Your task to perform on an android device: allow notifications from all sites in the chrome app Image 0: 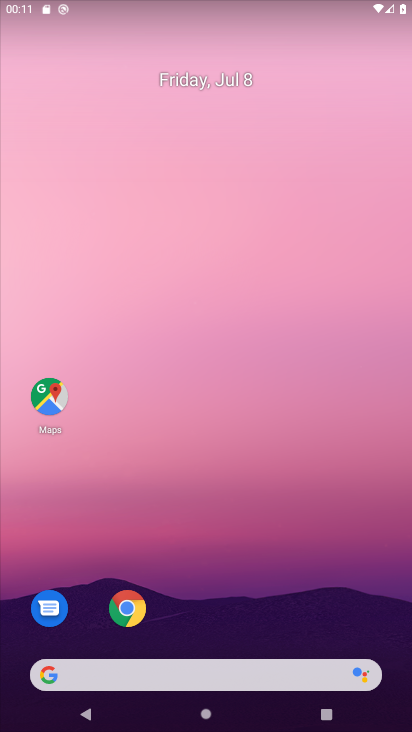
Step 0: drag from (265, 658) to (251, 290)
Your task to perform on an android device: allow notifications from all sites in the chrome app Image 1: 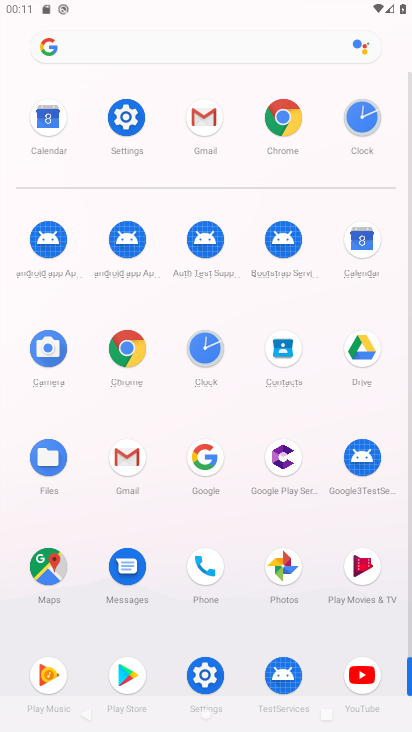
Step 1: click (279, 107)
Your task to perform on an android device: allow notifications from all sites in the chrome app Image 2: 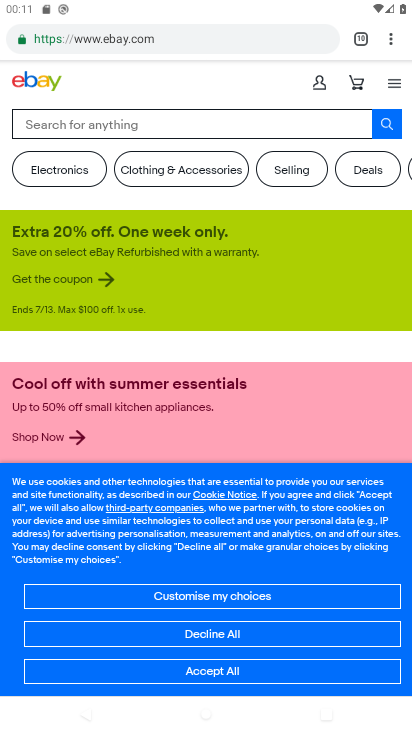
Step 2: press home button
Your task to perform on an android device: allow notifications from all sites in the chrome app Image 3: 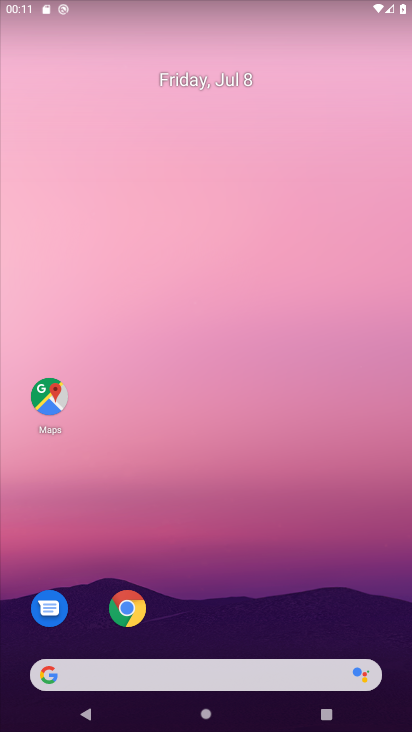
Step 3: drag from (293, 575) to (296, 238)
Your task to perform on an android device: allow notifications from all sites in the chrome app Image 4: 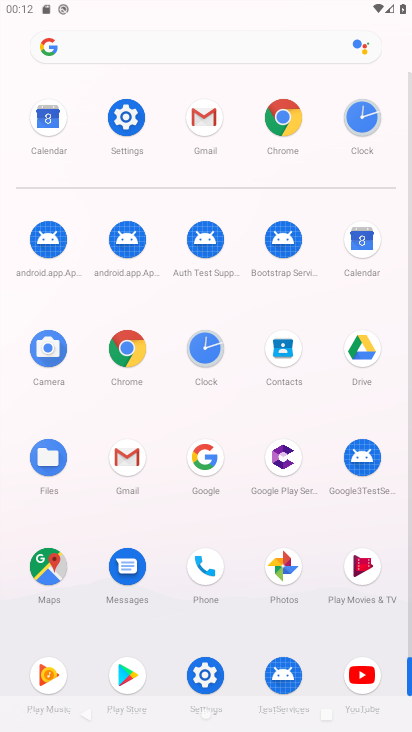
Step 4: click (133, 341)
Your task to perform on an android device: allow notifications from all sites in the chrome app Image 5: 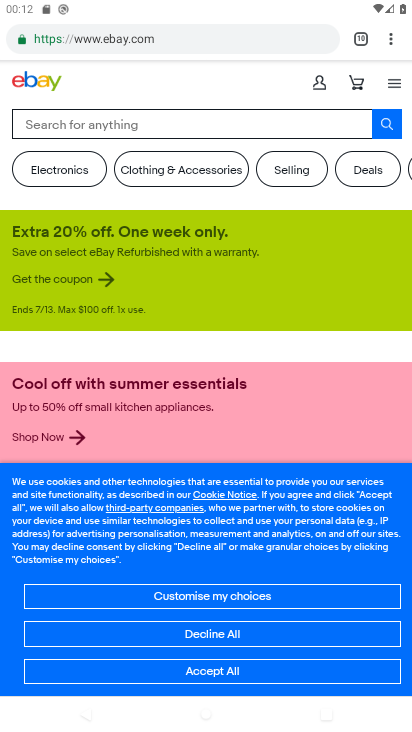
Step 5: click (391, 26)
Your task to perform on an android device: allow notifications from all sites in the chrome app Image 6: 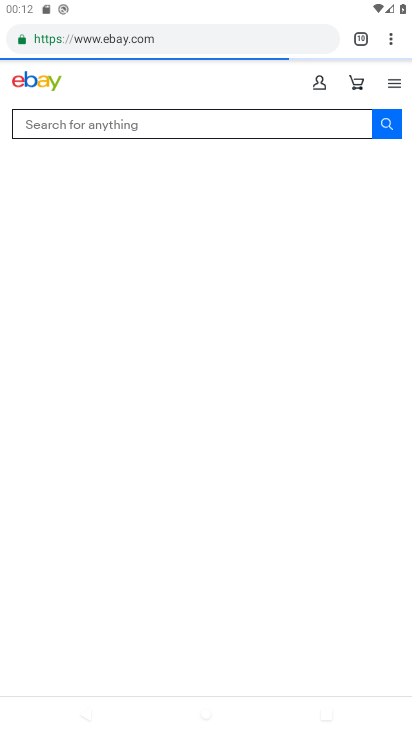
Step 6: click (389, 30)
Your task to perform on an android device: allow notifications from all sites in the chrome app Image 7: 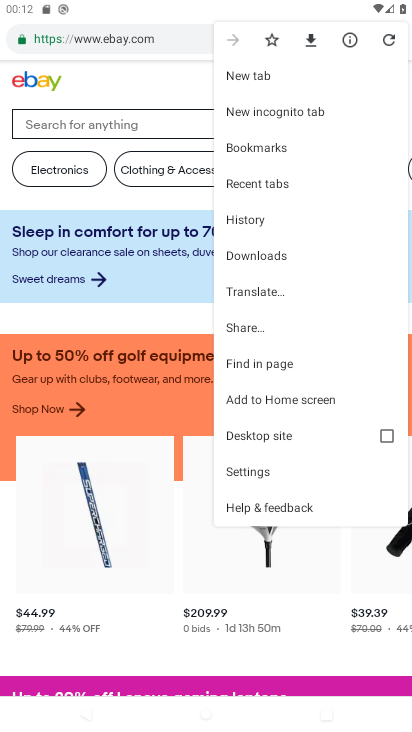
Step 7: click (253, 466)
Your task to perform on an android device: allow notifications from all sites in the chrome app Image 8: 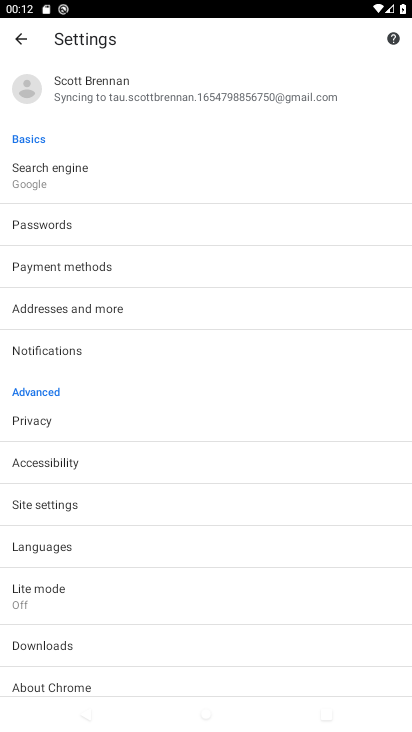
Step 8: click (84, 504)
Your task to perform on an android device: allow notifications from all sites in the chrome app Image 9: 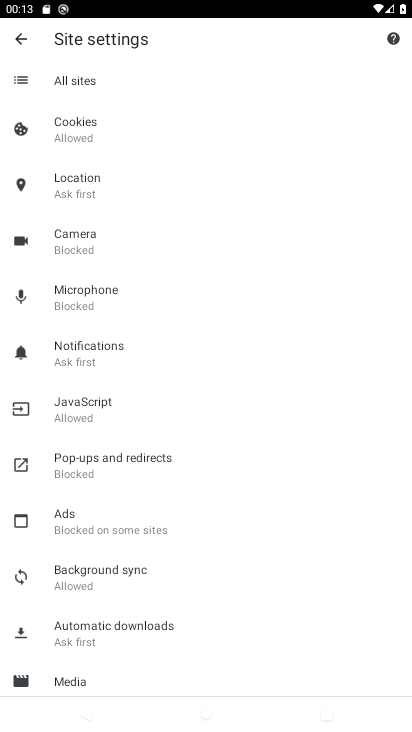
Step 9: click (128, 129)
Your task to perform on an android device: allow notifications from all sites in the chrome app Image 10: 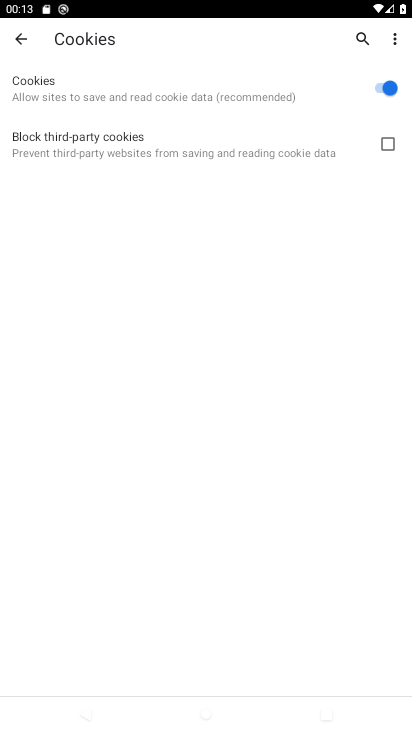
Step 10: click (18, 36)
Your task to perform on an android device: allow notifications from all sites in the chrome app Image 11: 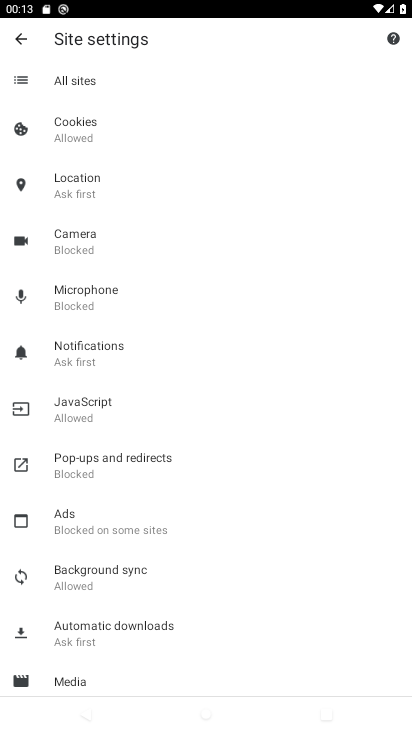
Step 11: click (93, 186)
Your task to perform on an android device: allow notifications from all sites in the chrome app Image 12: 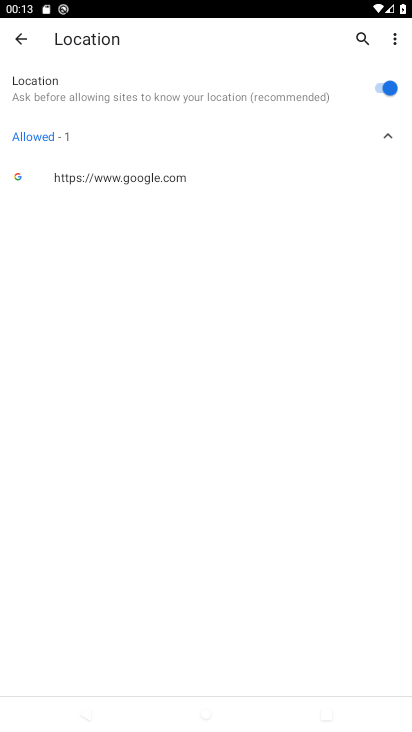
Step 12: click (25, 48)
Your task to perform on an android device: allow notifications from all sites in the chrome app Image 13: 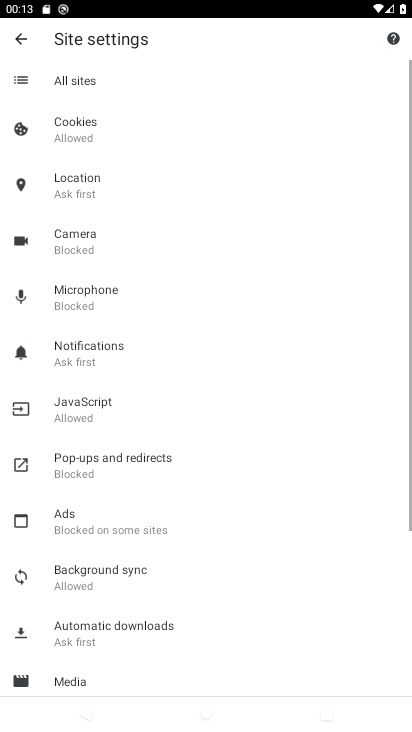
Step 13: click (96, 245)
Your task to perform on an android device: allow notifications from all sites in the chrome app Image 14: 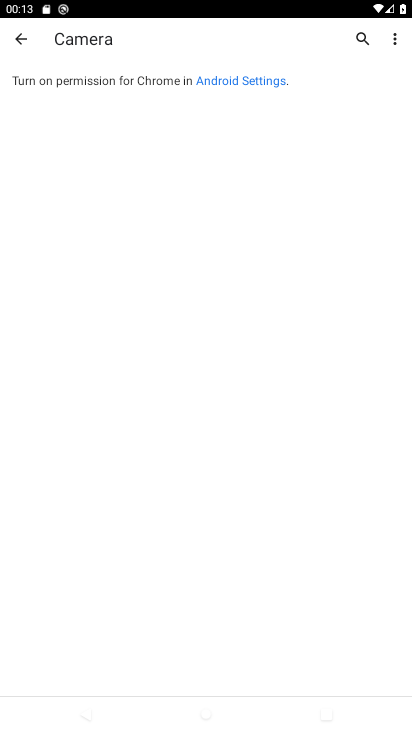
Step 14: click (25, 28)
Your task to perform on an android device: allow notifications from all sites in the chrome app Image 15: 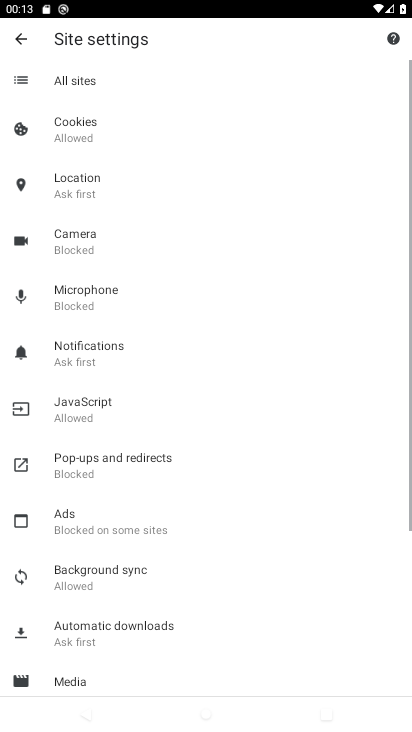
Step 15: click (90, 258)
Your task to perform on an android device: allow notifications from all sites in the chrome app Image 16: 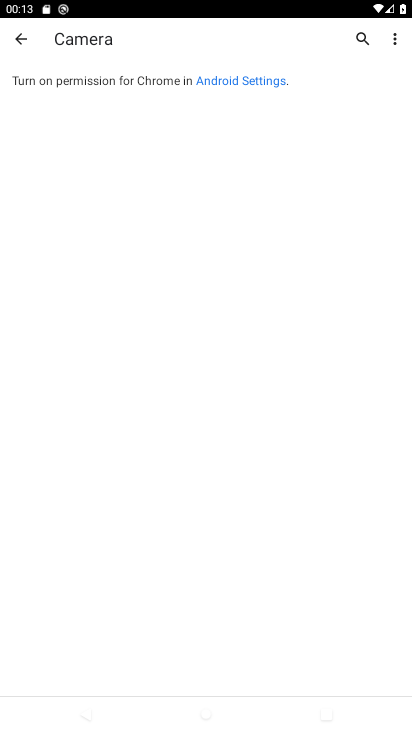
Step 16: click (21, 46)
Your task to perform on an android device: allow notifications from all sites in the chrome app Image 17: 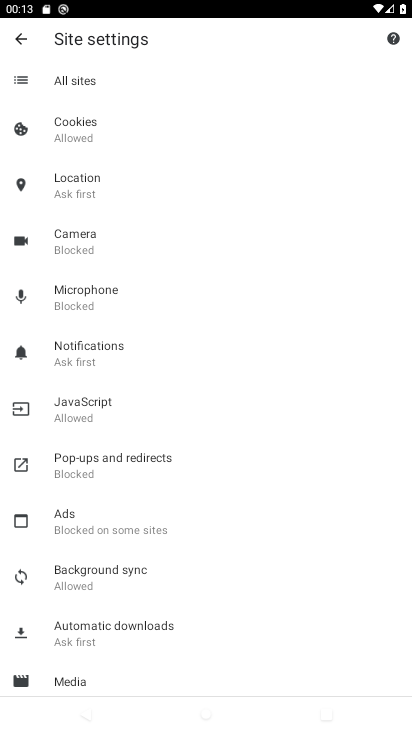
Step 17: click (107, 293)
Your task to perform on an android device: allow notifications from all sites in the chrome app Image 18: 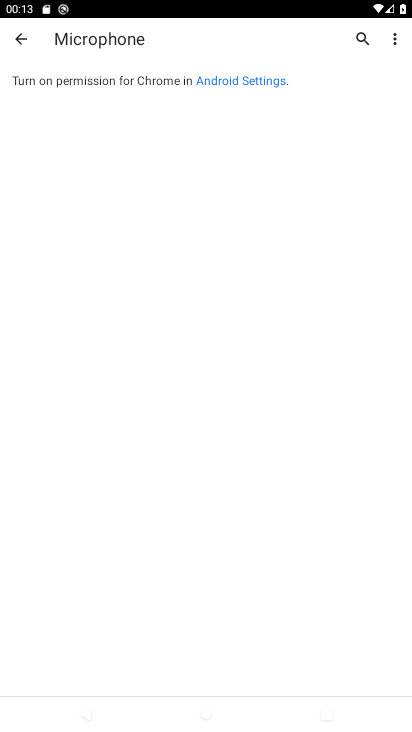
Step 18: click (34, 34)
Your task to perform on an android device: allow notifications from all sites in the chrome app Image 19: 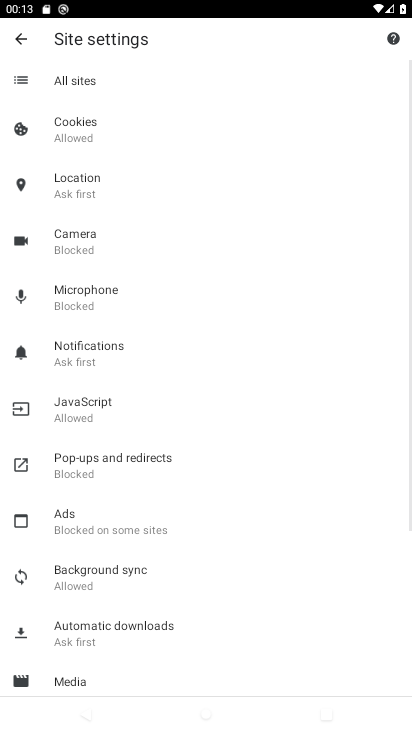
Step 19: click (118, 395)
Your task to perform on an android device: allow notifications from all sites in the chrome app Image 20: 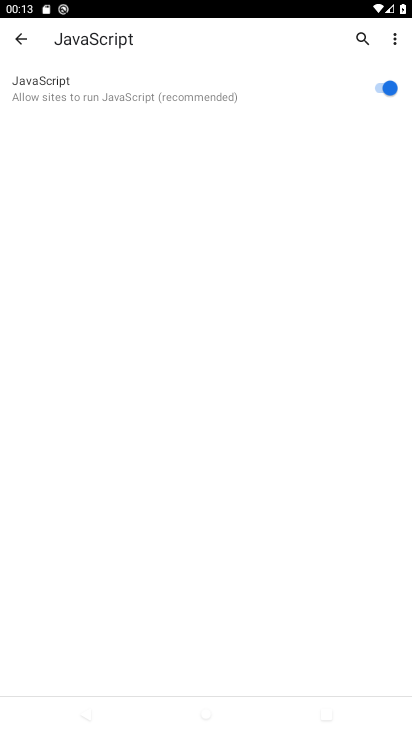
Step 20: click (18, 33)
Your task to perform on an android device: allow notifications from all sites in the chrome app Image 21: 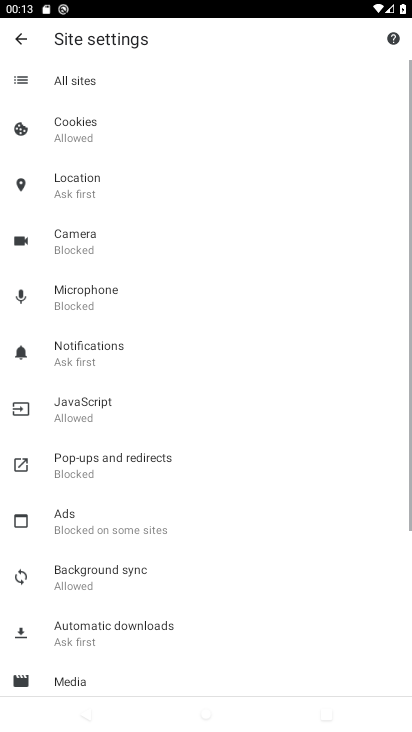
Step 21: task complete